Your task to perform on an android device: Open display settings Image 0: 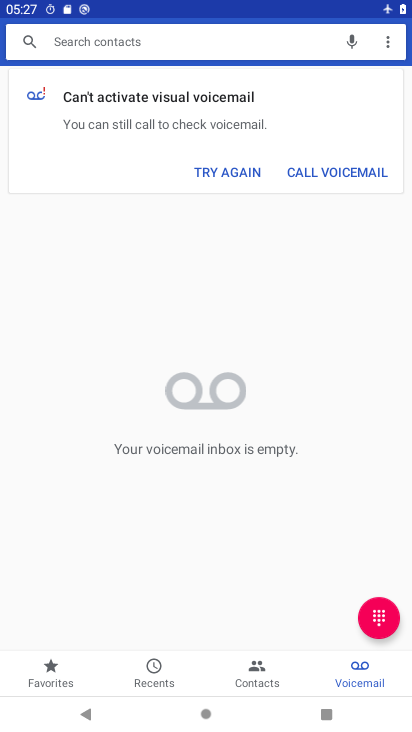
Step 0: press home button
Your task to perform on an android device: Open display settings Image 1: 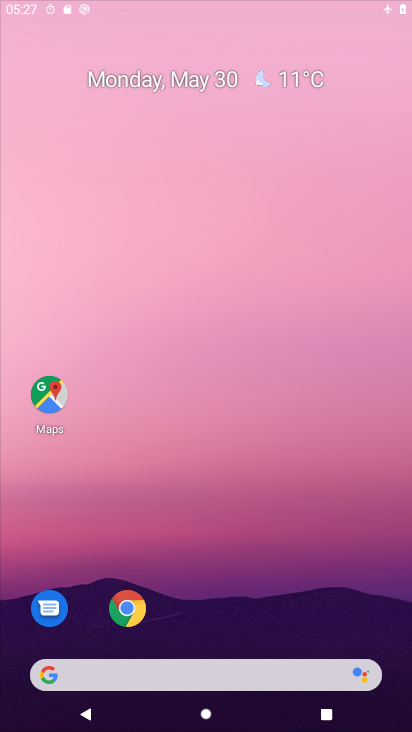
Step 1: drag from (281, 500) to (278, 54)
Your task to perform on an android device: Open display settings Image 2: 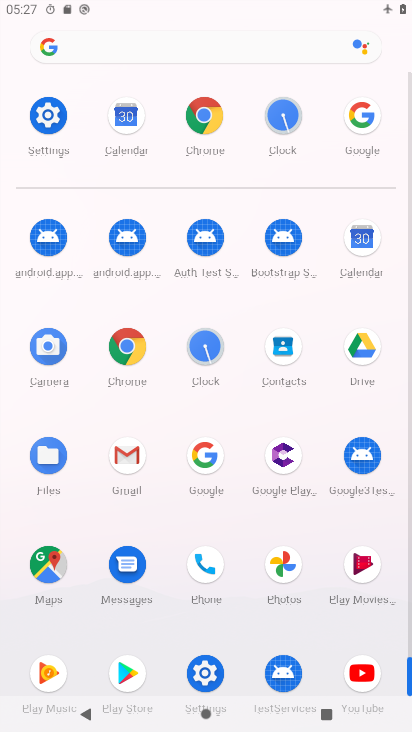
Step 2: click (43, 117)
Your task to perform on an android device: Open display settings Image 3: 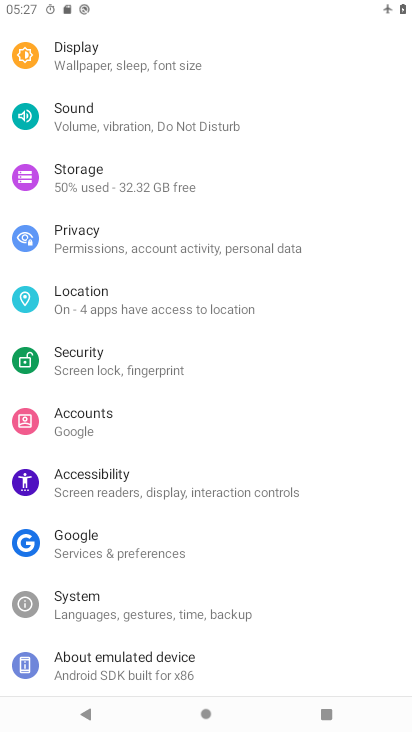
Step 3: drag from (195, 176) to (164, 468)
Your task to perform on an android device: Open display settings Image 4: 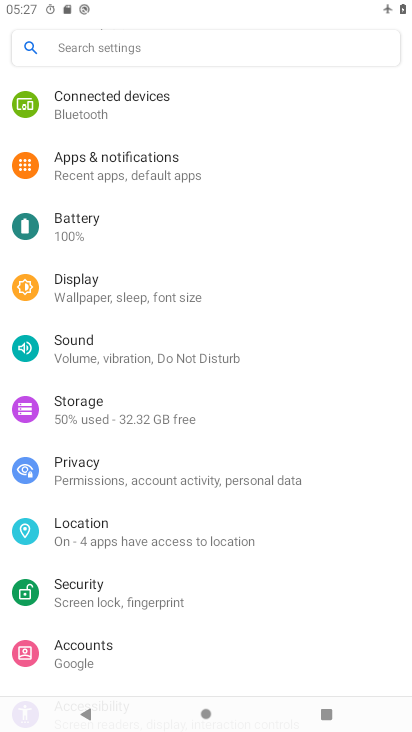
Step 4: click (131, 280)
Your task to perform on an android device: Open display settings Image 5: 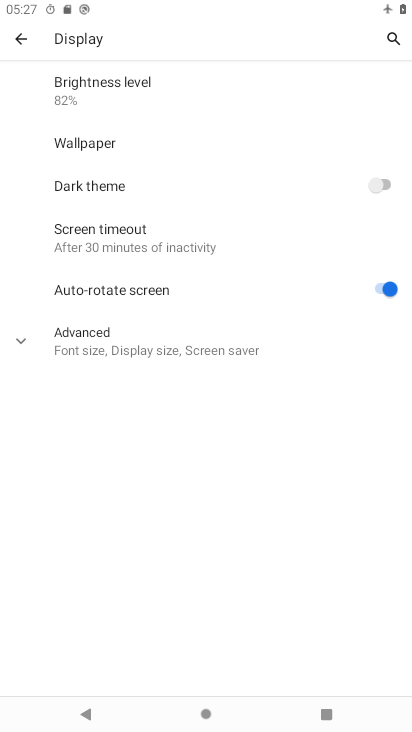
Step 5: task complete